Your task to perform on an android device: Open network settings Image 0: 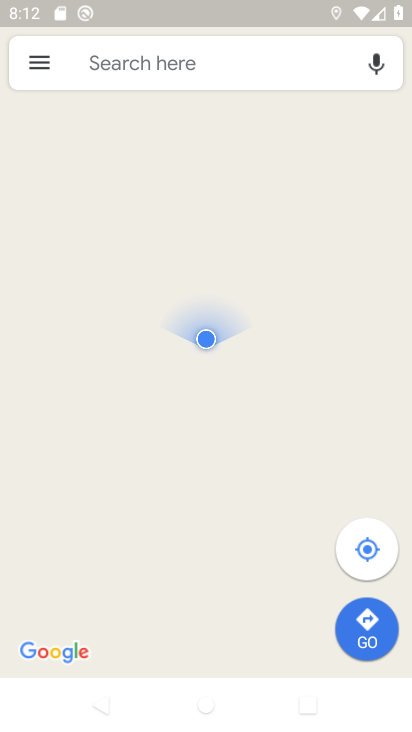
Step 0: press home button
Your task to perform on an android device: Open network settings Image 1: 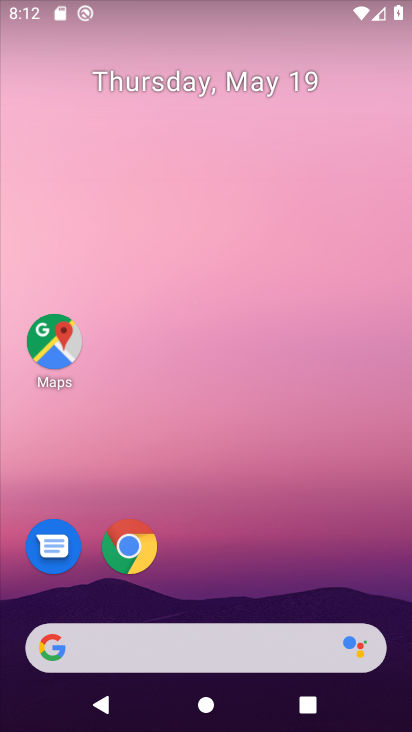
Step 1: drag from (283, 540) to (231, 76)
Your task to perform on an android device: Open network settings Image 2: 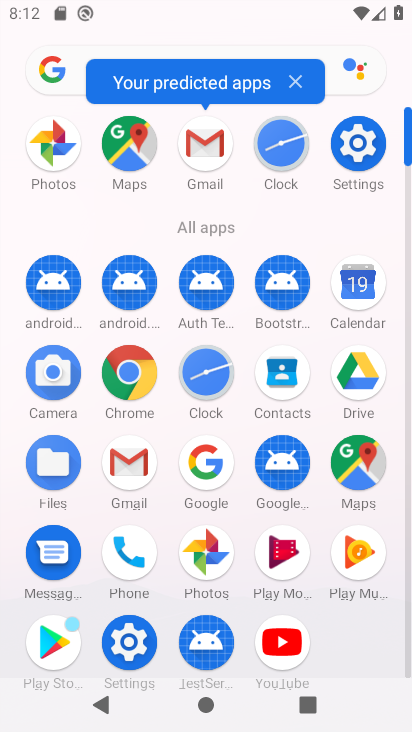
Step 2: click (355, 134)
Your task to perform on an android device: Open network settings Image 3: 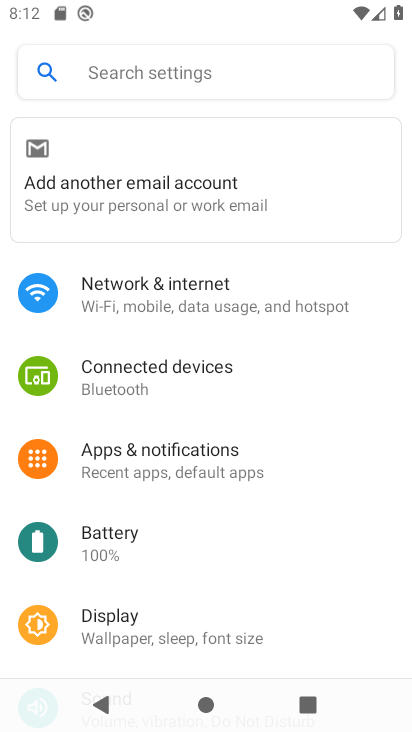
Step 3: click (179, 302)
Your task to perform on an android device: Open network settings Image 4: 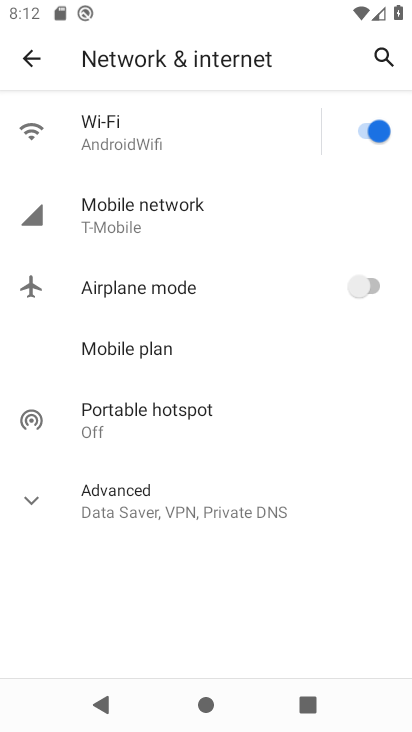
Step 4: task complete